Your task to perform on an android device: Do I have any events tomorrow? Image 0: 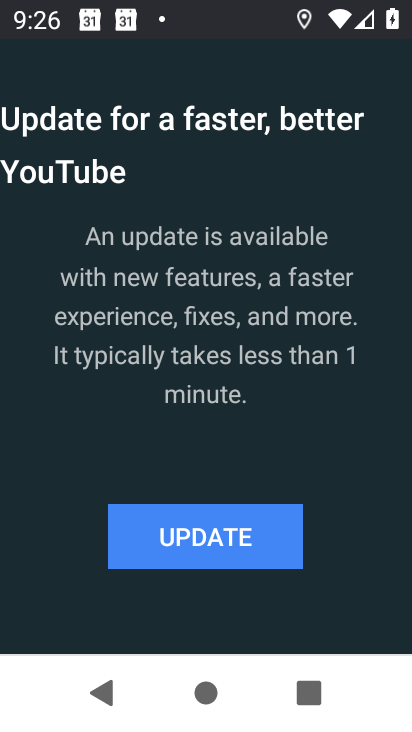
Step 0: press back button
Your task to perform on an android device: Do I have any events tomorrow? Image 1: 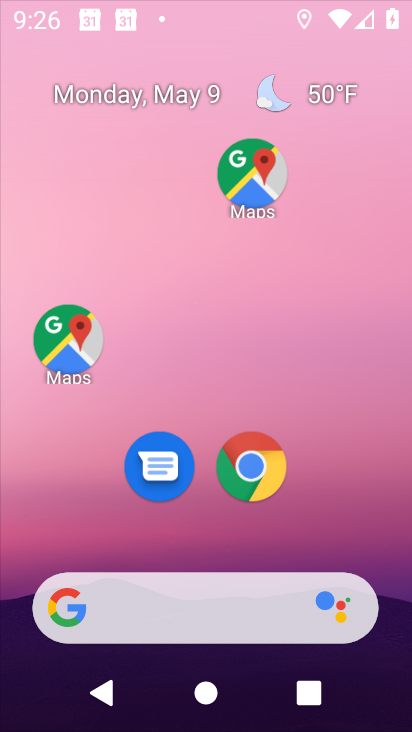
Step 1: press back button
Your task to perform on an android device: Do I have any events tomorrow? Image 2: 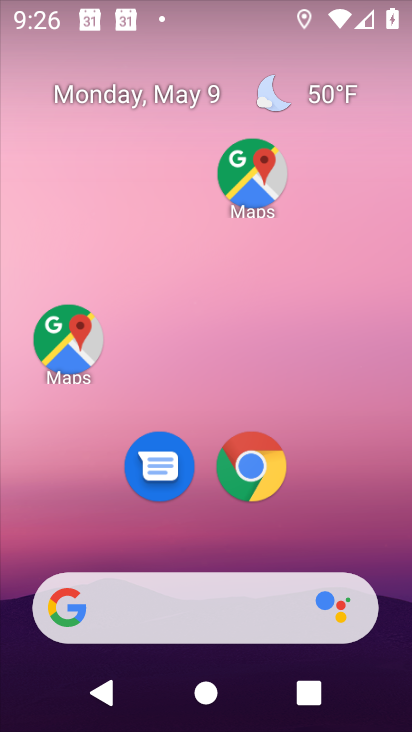
Step 2: drag from (316, 535) to (248, 53)
Your task to perform on an android device: Do I have any events tomorrow? Image 3: 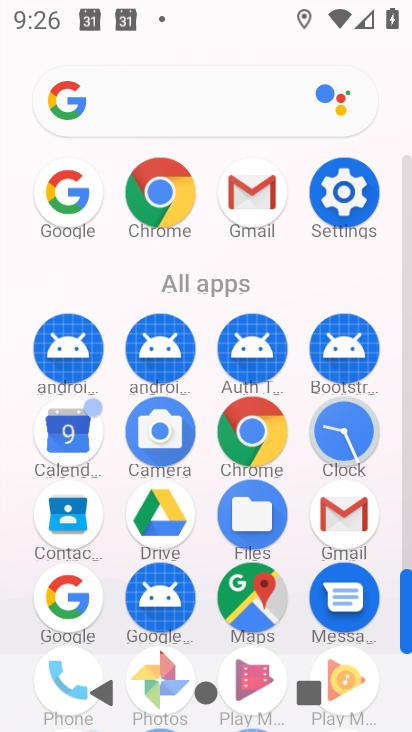
Step 3: click (55, 436)
Your task to perform on an android device: Do I have any events tomorrow? Image 4: 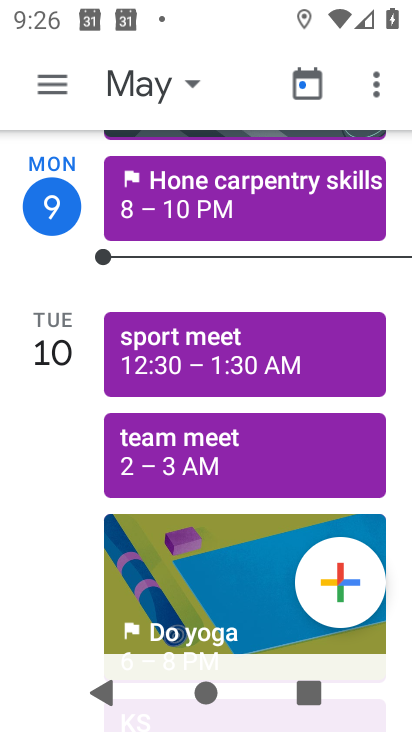
Step 4: click (143, 91)
Your task to perform on an android device: Do I have any events tomorrow? Image 5: 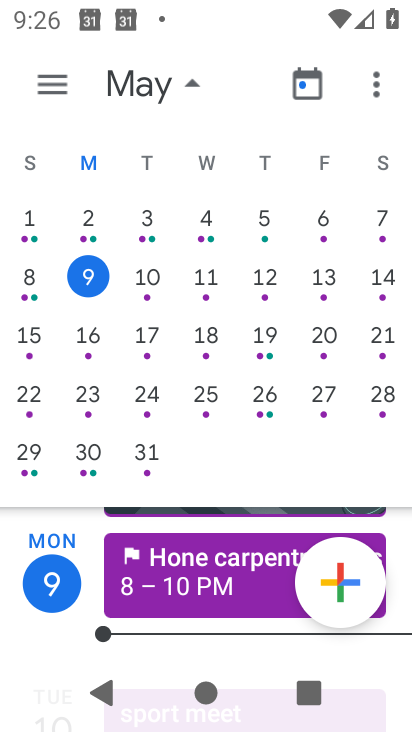
Step 5: click (135, 284)
Your task to perform on an android device: Do I have any events tomorrow? Image 6: 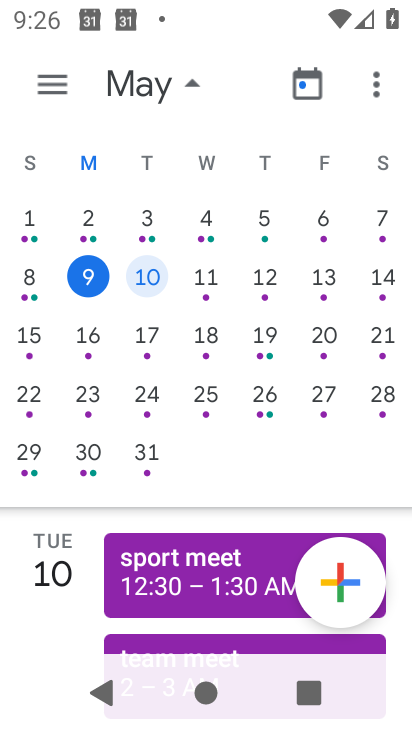
Step 6: task complete